Your task to perform on an android device: allow notifications from all sites in the chrome app Image 0: 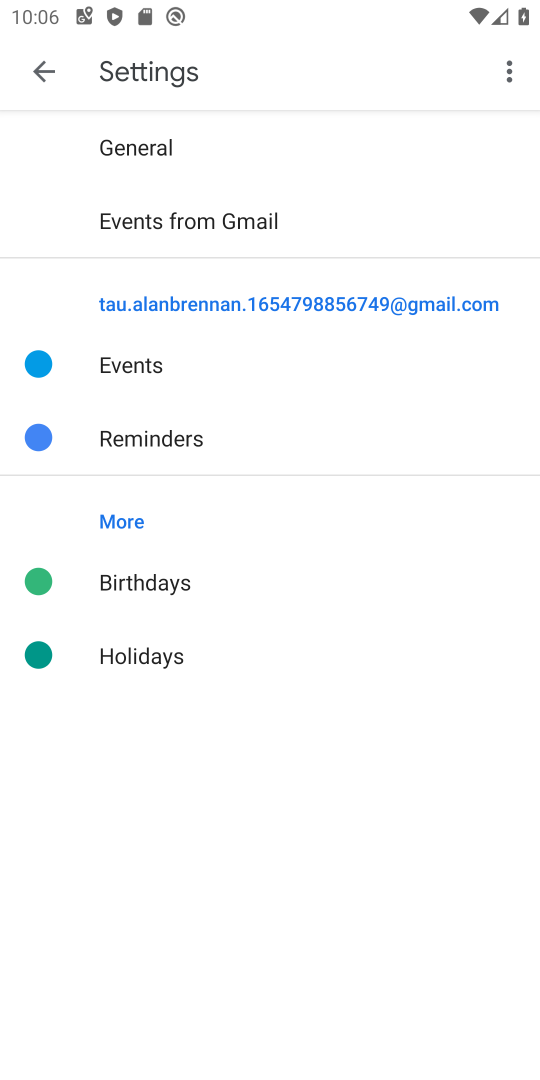
Step 0: press home button
Your task to perform on an android device: allow notifications from all sites in the chrome app Image 1: 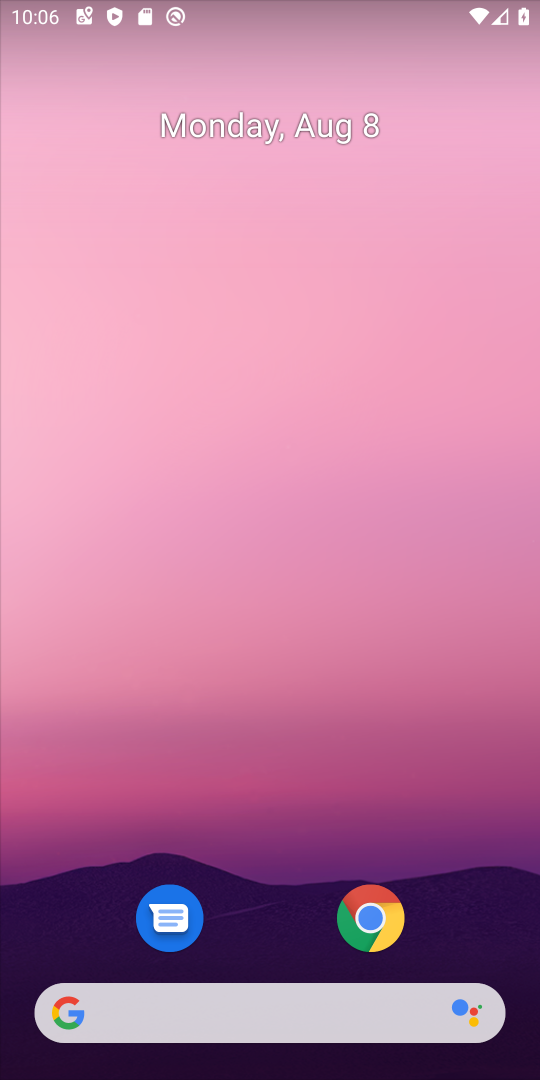
Step 1: drag from (280, 977) to (139, 170)
Your task to perform on an android device: allow notifications from all sites in the chrome app Image 2: 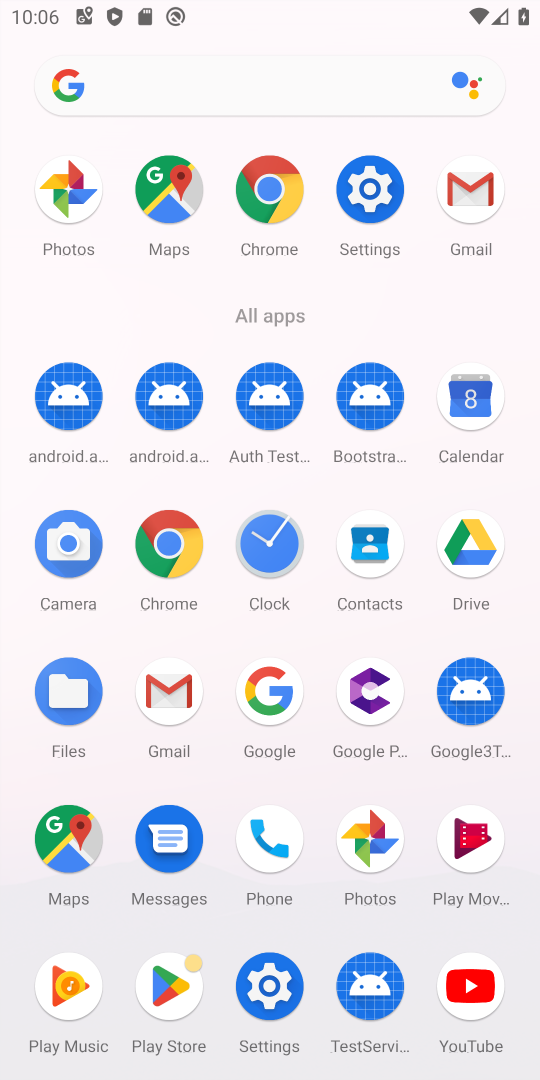
Step 2: click (173, 516)
Your task to perform on an android device: allow notifications from all sites in the chrome app Image 3: 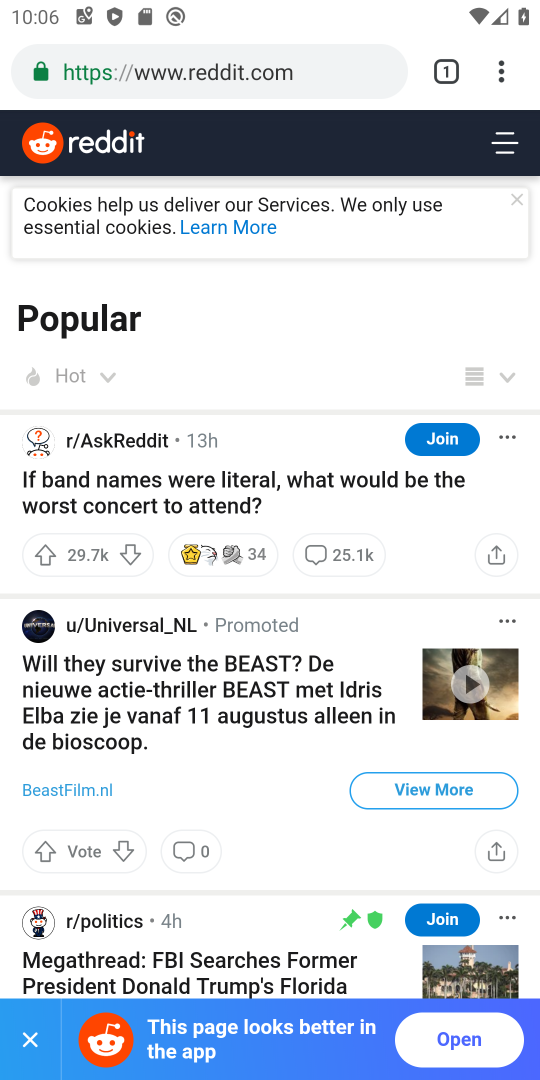
Step 3: click (502, 71)
Your task to perform on an android device: allow notifications from all sites in the chrome app Image 4: 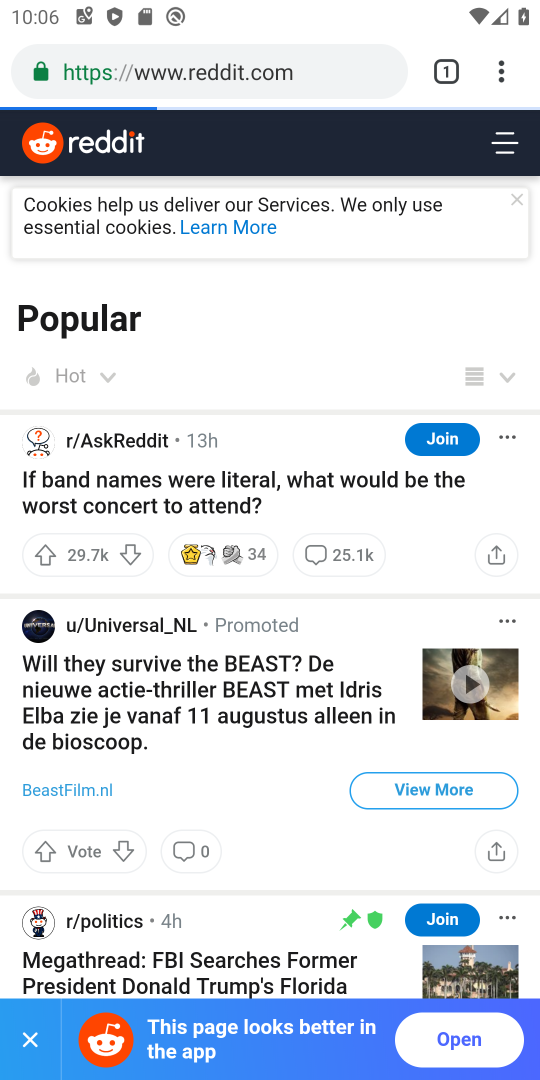
Step 4: drag from (495, 80) to (249, 870)
Your task to perform on an android device: allow notifications from all sites in the chrome app Image 5: 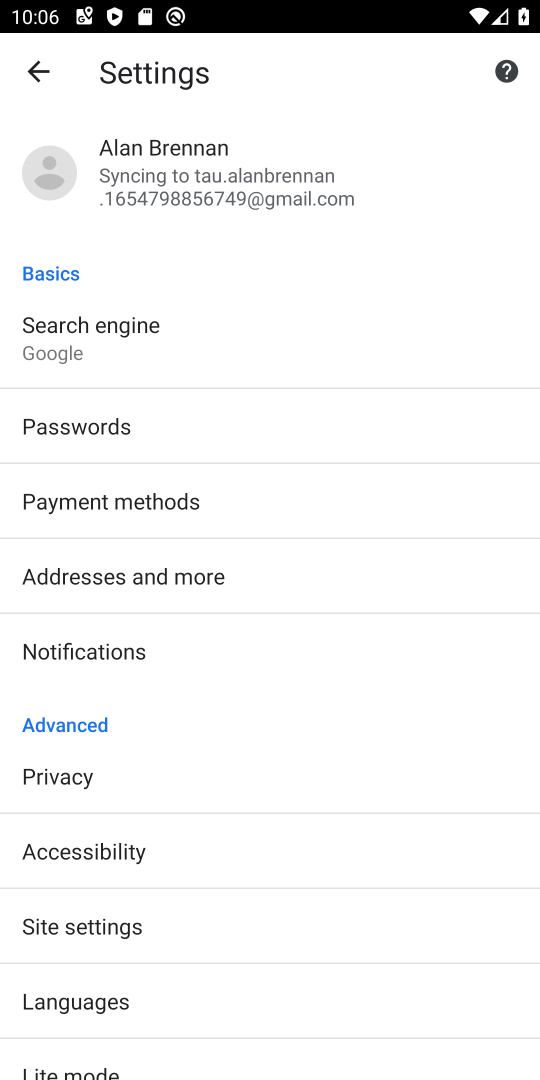
Step 5: click (107, 661)
Your task to perform on an android device: allow notifications from all sites in the chrome app Image 6: 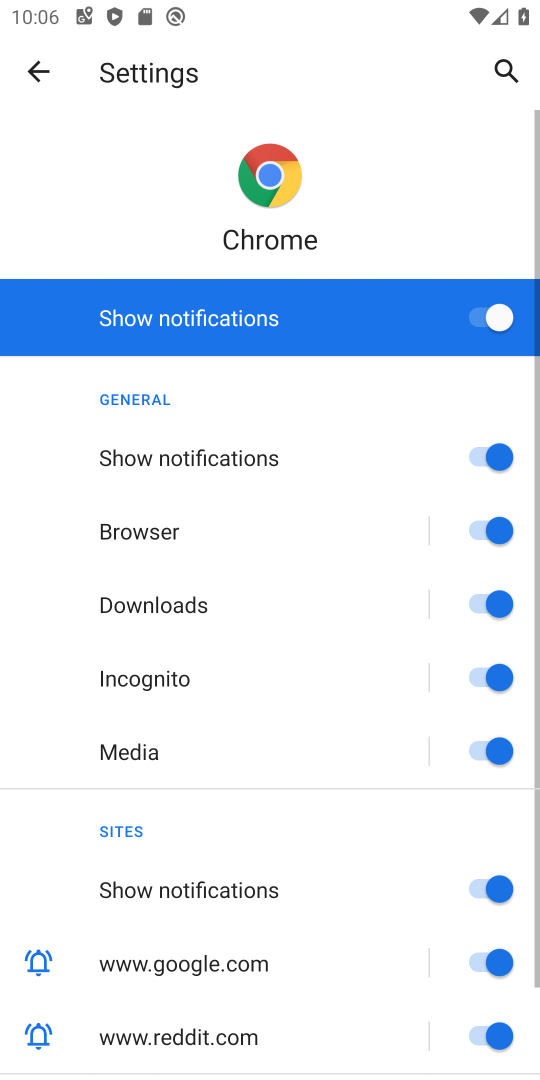
Step 6: click (36, 96)
Your task to perform on an android device: allow notifications from all sites in the chrome app Image 7: 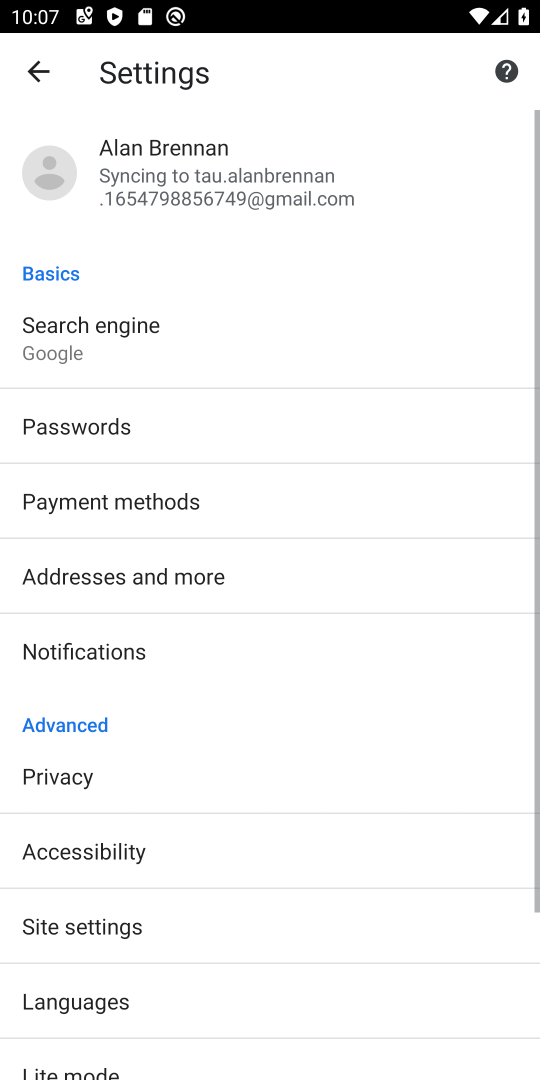
Step 7: click (132, 931)
Your task to perform on an android device: allow notifications from all sites in the chrome app Image 8: 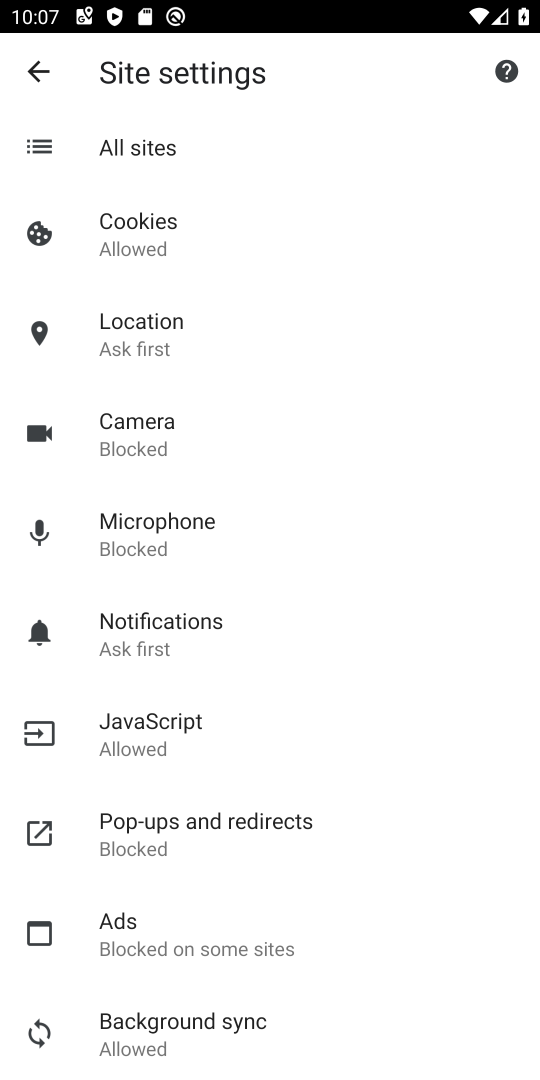
Step 8: click (146, 626)
Your task to perform on an android device: allow notifications from all sites in the chrome app Image 9: 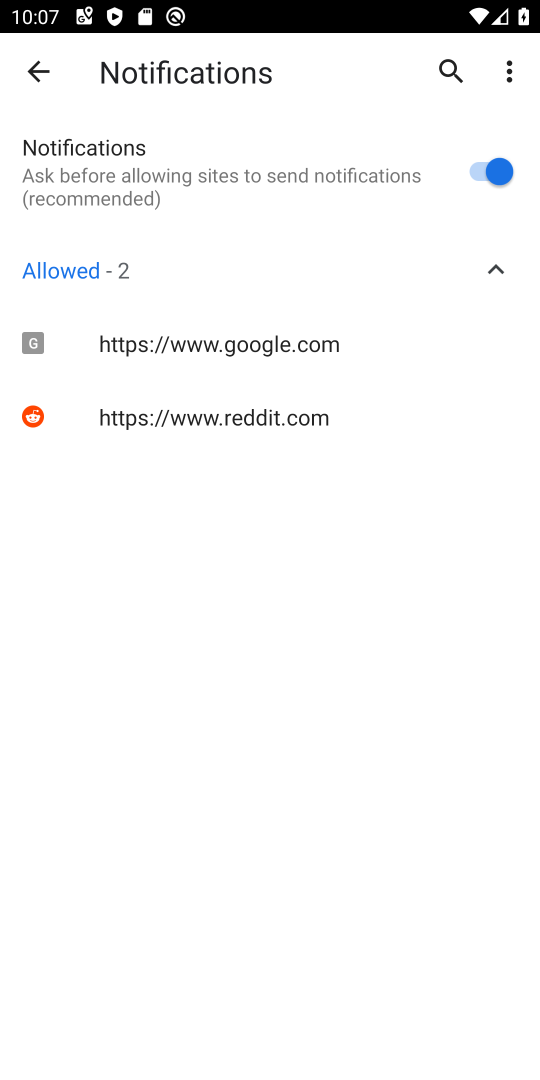
Step 9: task complete